Your task to perform on an android device: Search for Italian restaurants on Maps Image 0: 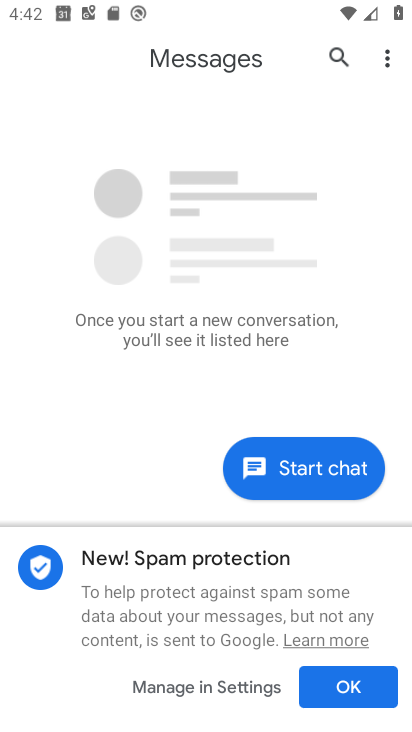
Step 0: press home button
Your task to perform on an android device: Search for Italian restaurants on Maps Image 1: 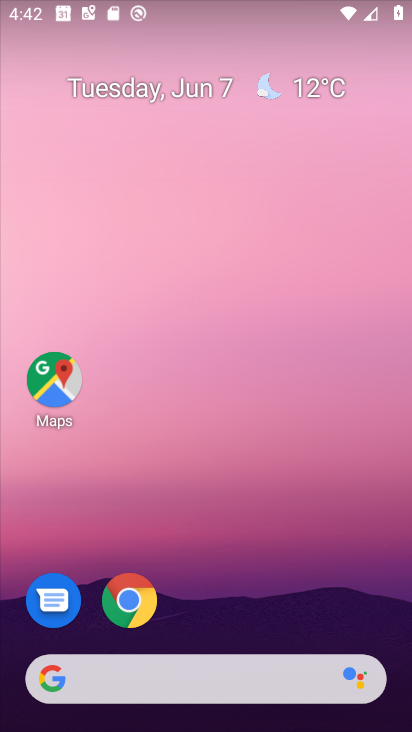
Step 1: click (62, 370)
Your task to perform on an android device: Search for Italian restaurants on Maps Image 2: 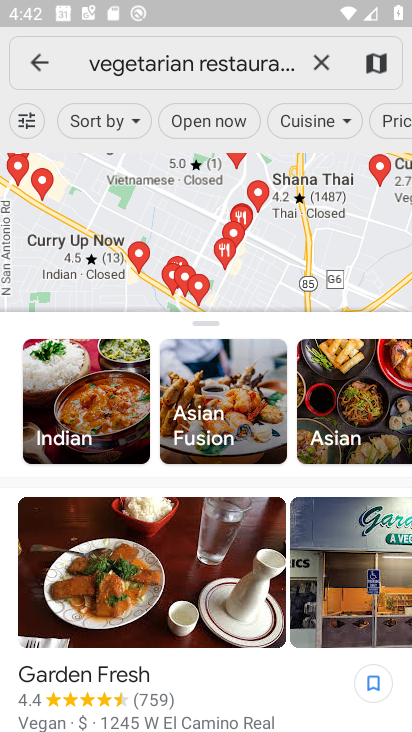
Step 2: click (214, 62)
Your task to perform on an android device: Search for Italian restaurants on Maps Image 3: 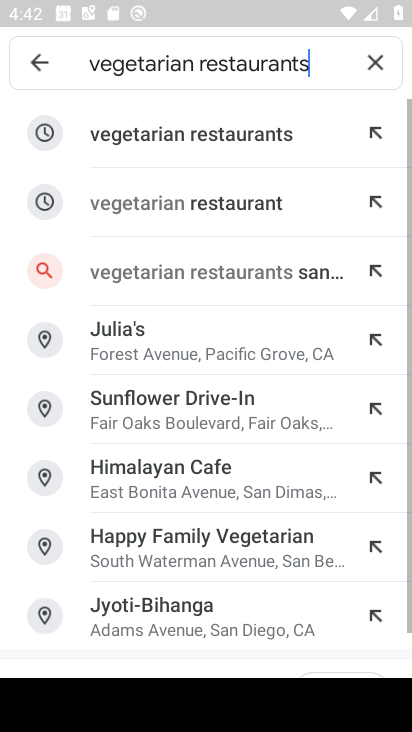
Step 3: click (379, 60)
Your task to perform on an android device: Search for Italian restaurants on Maps Image 4: 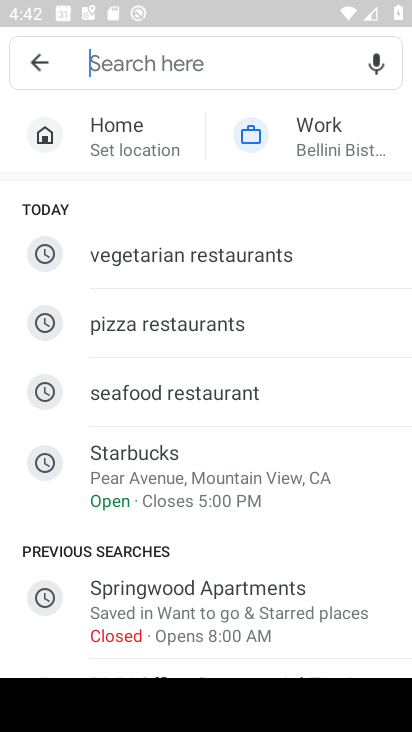
Step 4: type "Italiian restaurants"
Your task to perform on an android device: Search for Italian restaurants on Maps Image 5: 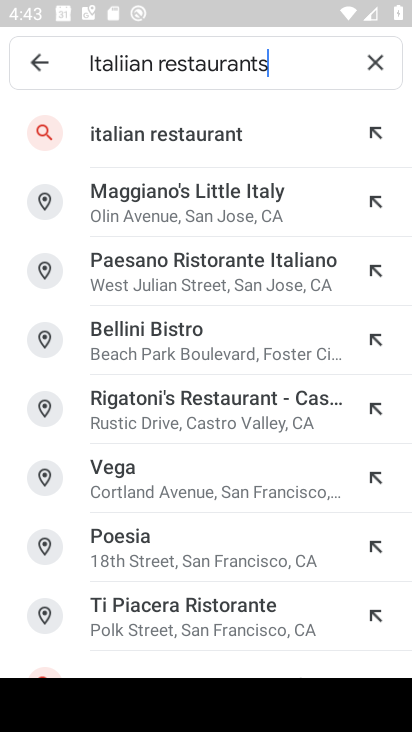
Step 5: press enter
Your task to perform on an android device: Search for Italian restaurants on Maps Image 6: 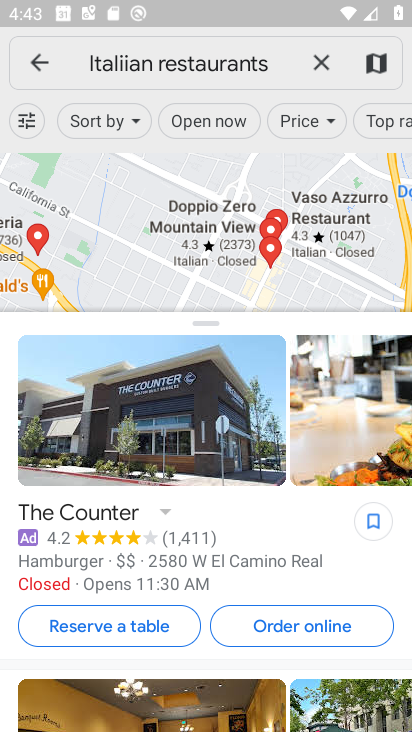
Step 6: task complete